Your task to perform on an android device: What is the recent news? Image 0: 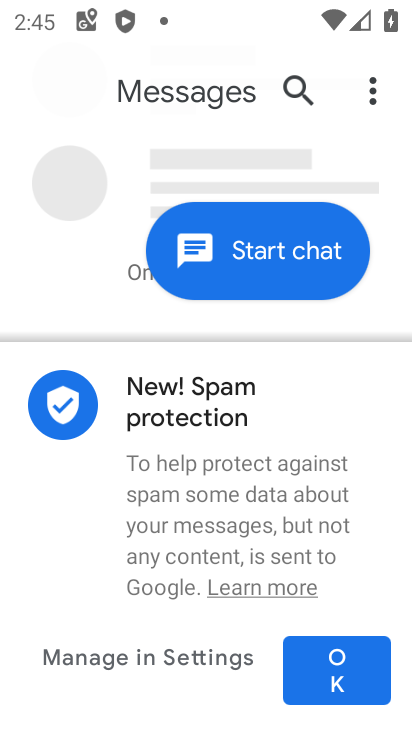
Step 0: press home button
Your task to perform on an android device: What is the recent news? Image 1: 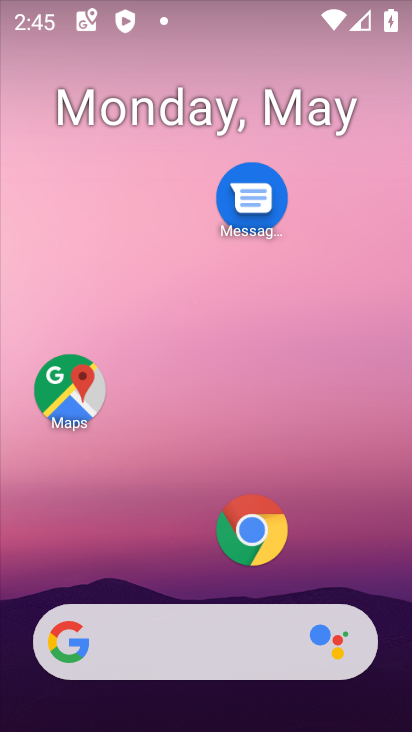
Step 1: click (164, 630)
Your task to perform on an android device: What is the recent news? Image 2: 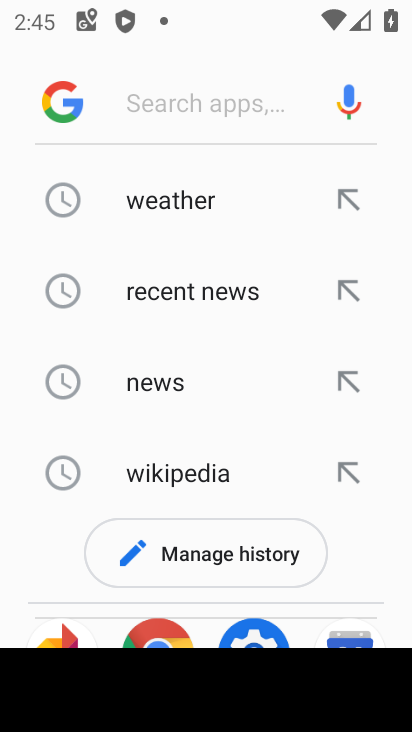
Step 2: click (163, 284)
Your task to perform on an android device: What is the recent news? Image 3: 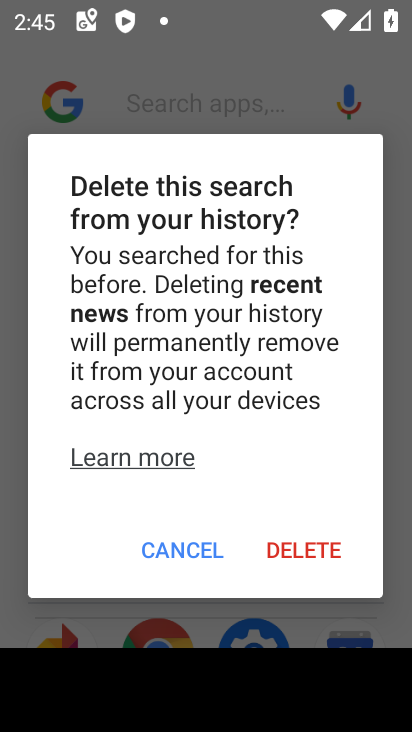
Step 3: click (175, 536)
Your task to perform on an android device: What is the recent news? Image 4: 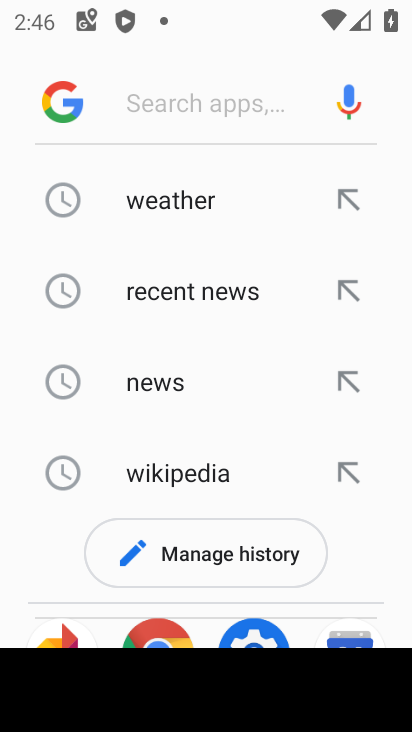
Step 4: click (181, 297)
Your task to perform on an android device: What is the recent news? Image 5: 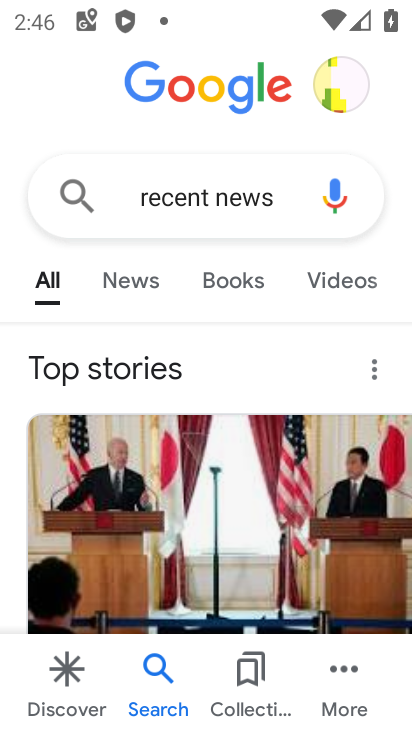
Step 5: task complete